Your task to perform on an android device: Go to Wikipedia Image 0: 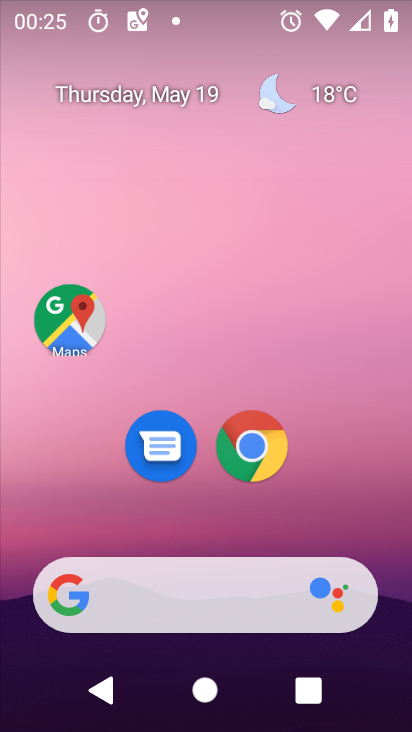
Step 0: click (241, 439)
Your task to perform on an android device: Go to Wikipedia Image 1: 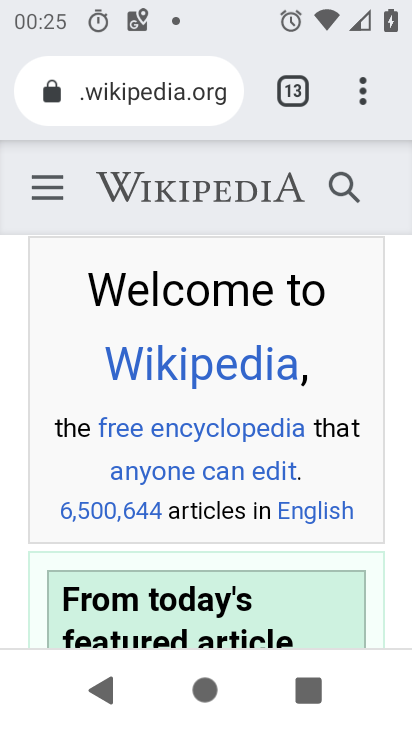
Step 1: task complete